Your task to perform on an android device: Open notification settings Image 0: 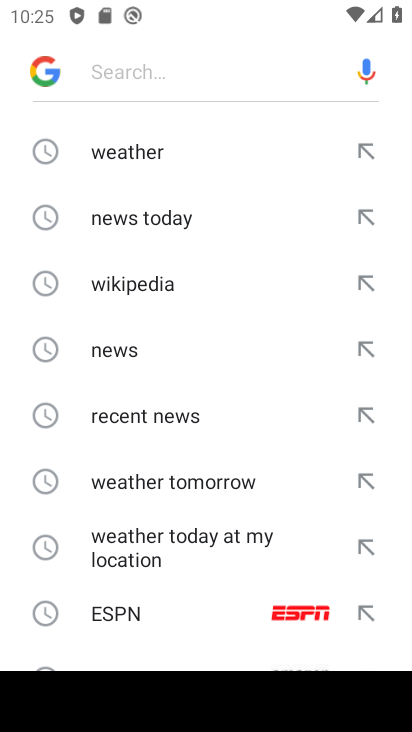
Step 0: press home button
Your task to perform on an android device: Open notification settings Image 1: 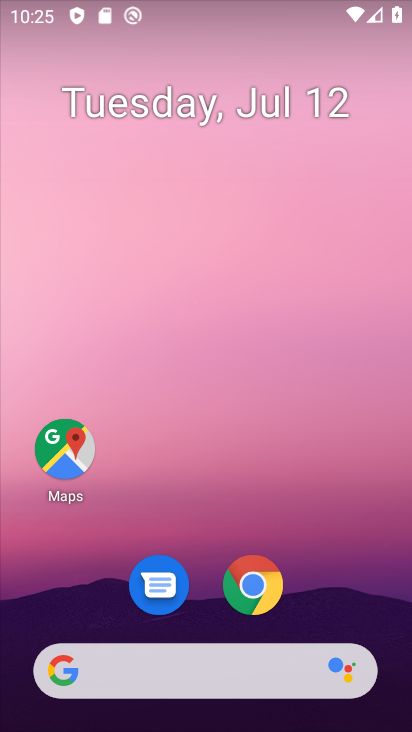
Step 1: drag from (207, 533) to (254, 5)
Your task to perform on an android device: Open notification settings Image 2: 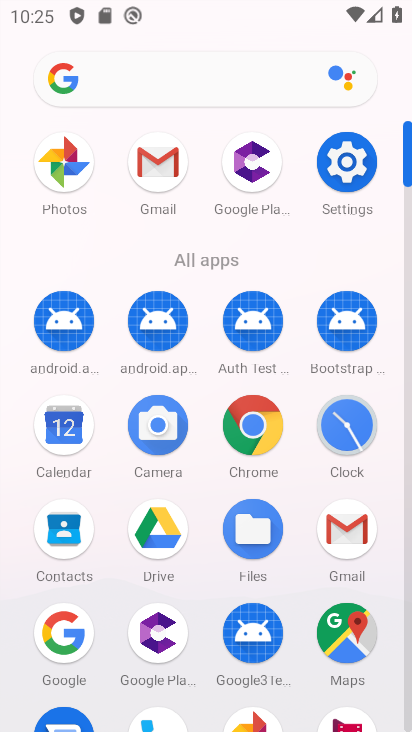
Step 2: click (351, 170)
Your task to perform on an android device: Open notification settings Image 3: 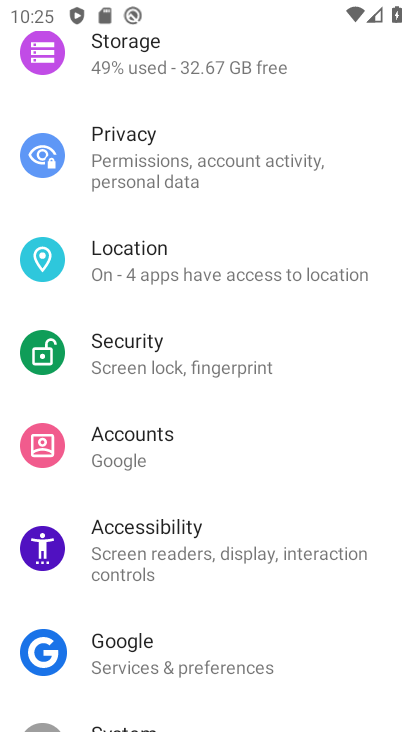
Step 3: drag from (217, 222) to (224, 644)
Your task to perform on an android device: Open notification settings Image 4: 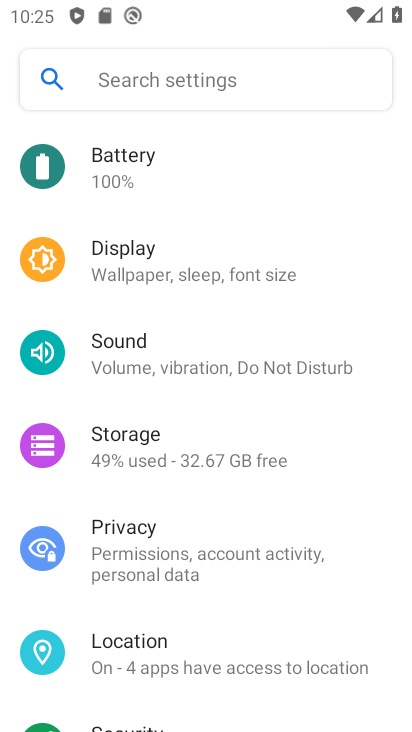
Step 4: drag from (233, 191) to (260, 574)
Your task to perform on an android device: Open notification settings Image 5: 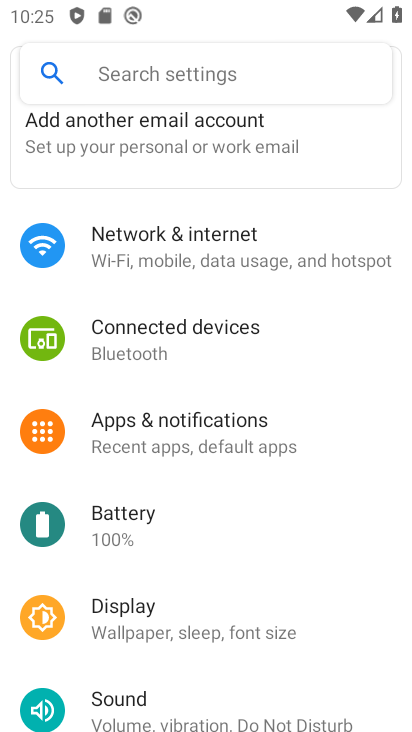
Step 5: click (219, 432)
Your task to perform on an android device: Open notification settings Image 6: 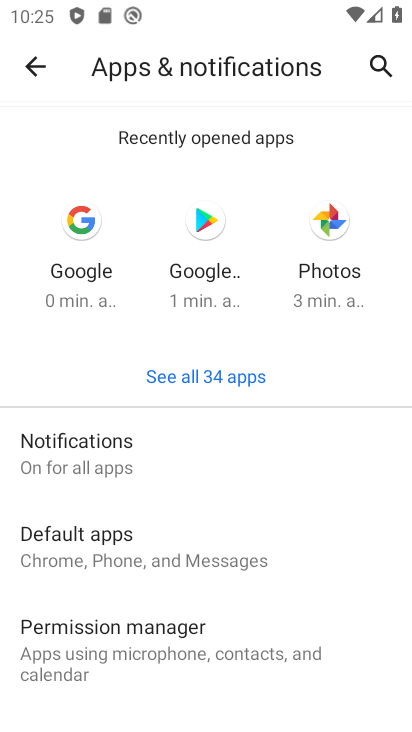
Step 6: click (71, 463)
Your task to perform on an android device: Open notification settings Image 7: 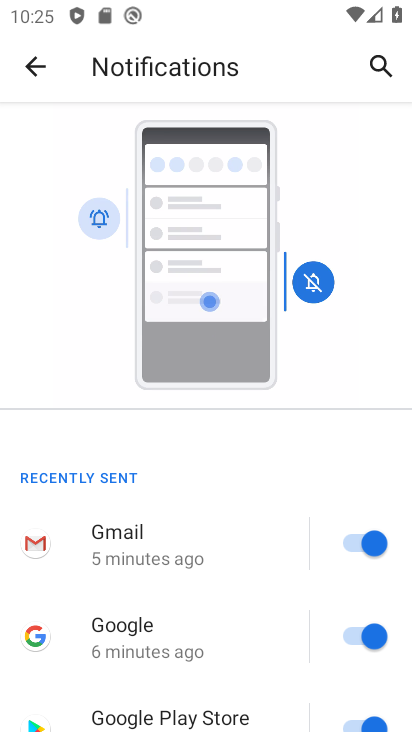
Step 7: task complete